Your task to perform on an android device: turn on location history Image 0: 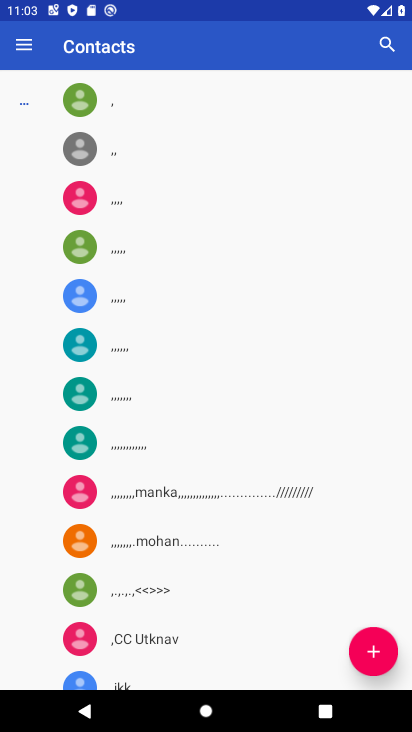
Step 0: press back button
Your task to perform on an android device: turn on location history Image 1: 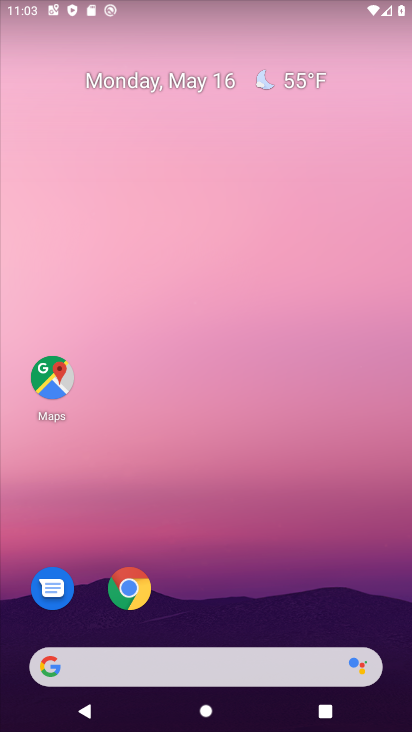
Step 1: drag from (352, 602) to (339, 121)
Your task to perform on an android device: turn on location history Image 2: 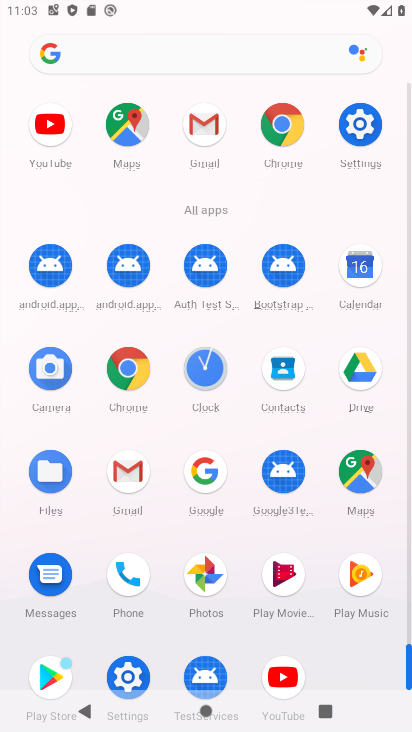
Step 2: click (364, 137)
Your task to perform on an android device: turn on location history Image 3: 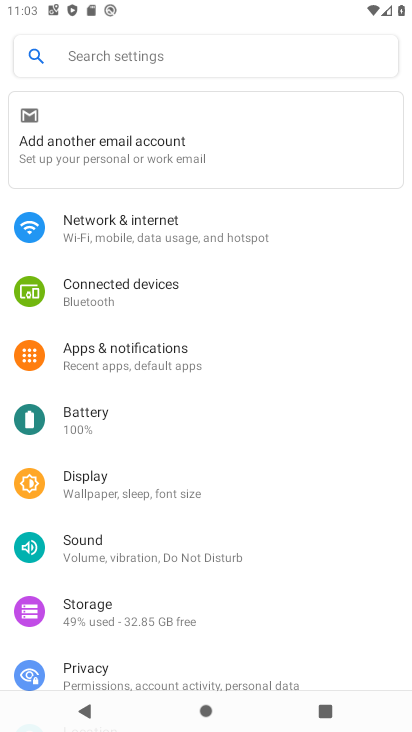
Step 3: drag from (291, 624) to (299, 408)
Your task to perform on an android device: turn on location history Image 4: 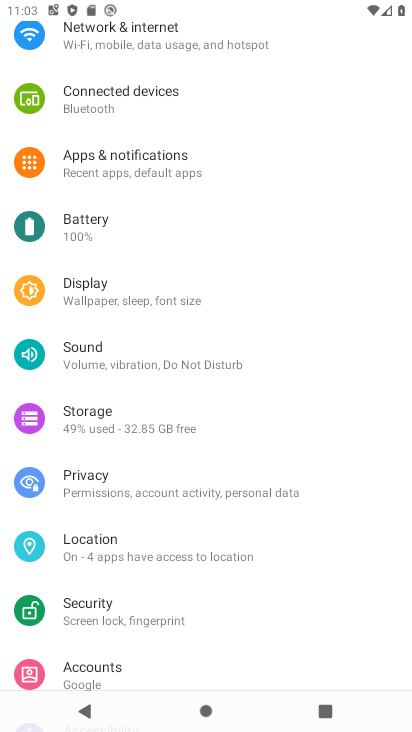
Step 4: drag from (291, 634) to (317, 415)
Your task to perform on an android device: turn on location history Image 5: 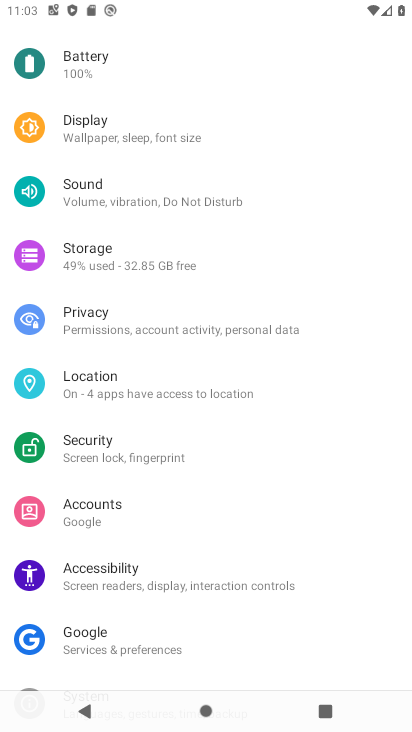
Step 5: drag from (272, 629) to (274, 426)
Your task to perform on an android device: turn on location history Image 6: 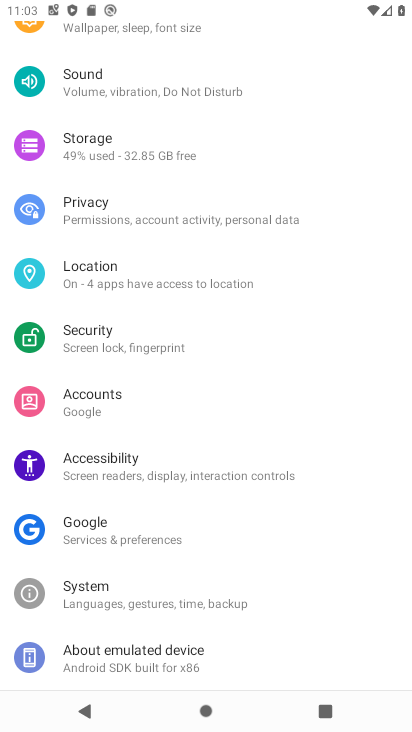
Step 6: drag from (313, 304) to (285, 489)
Your task to perform on an android device: turn on location history Image 7: 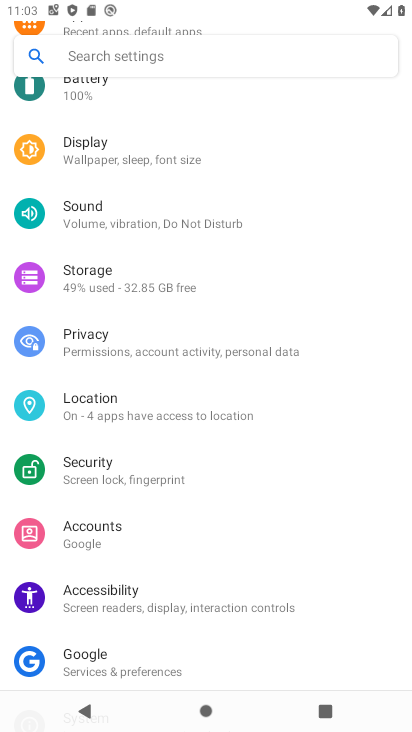
Step 7: drag from (313, 252) to (315, 439)
Your task to perform on an android device: turn on location history Image 8: 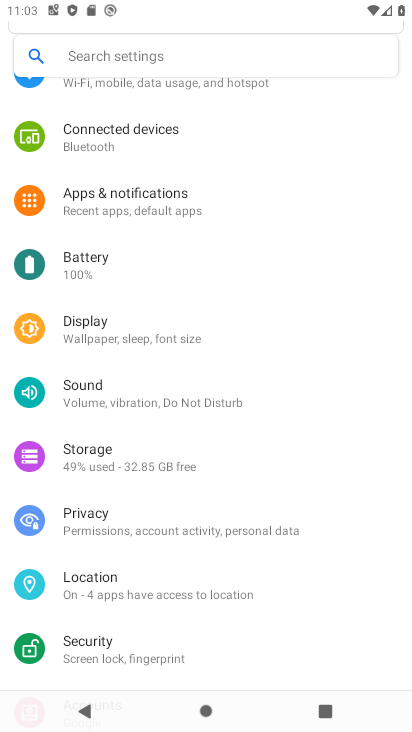
Step 8: drag from (325, 239) to (312, 378)
Your task to perform on an android device: turn on location history Image 9: 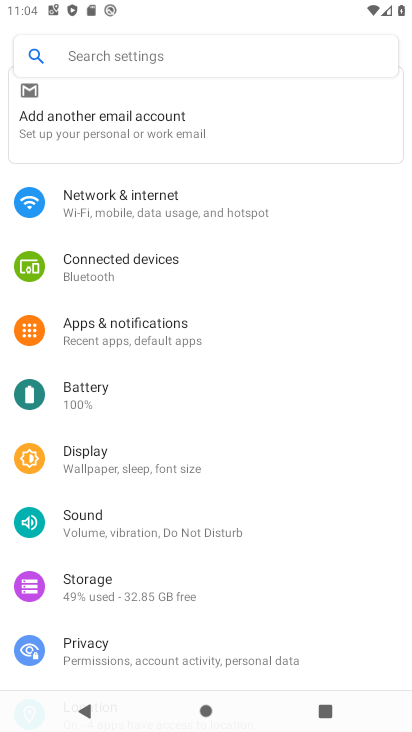
Step 9: drag from (321, 568) to (311, 391)
Your task to perform on an android device: turn on location history Image 10: 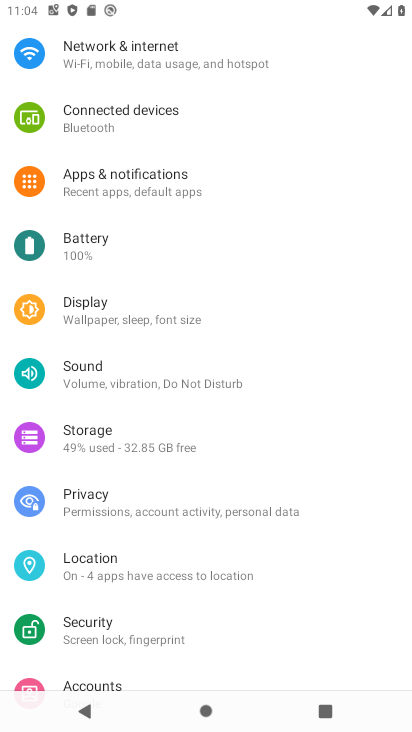
Step 10: drag from (295, 615) to (311, 381)
Your task to perform on an android device: turn on location history Image 11: 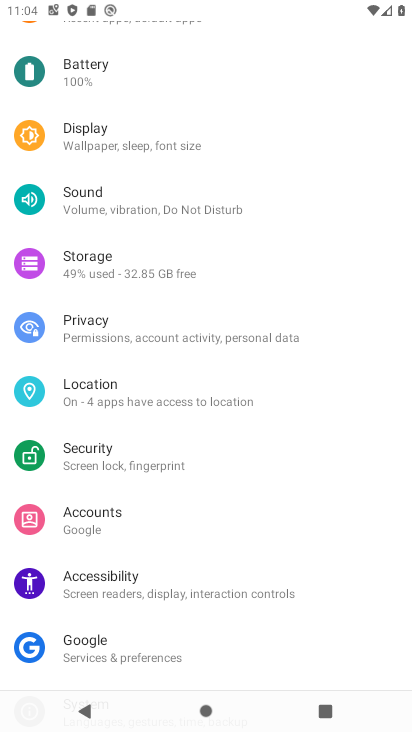
Step 11: click (190, 390)
Your task to perform on an android device: turn on location history Image 12: 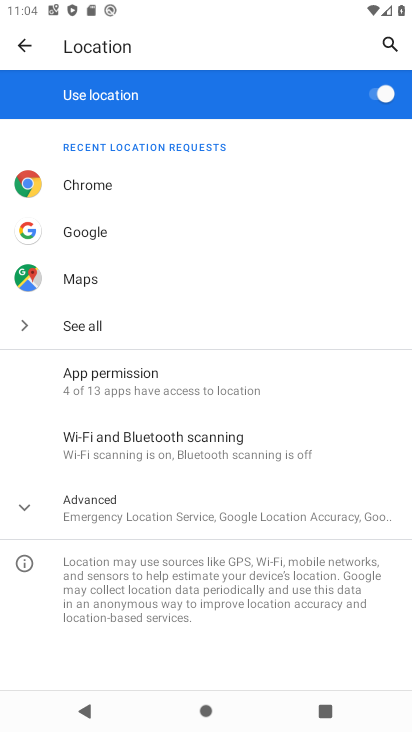
Step 12: click (222, 519)
Your task to perform on an android device: turn on location history Image 13: 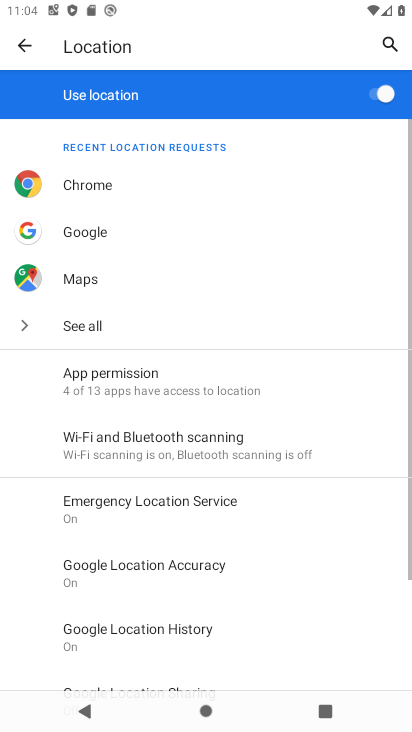
Step 13: drag from (237, 576) to (265, 387)
Your task to perform on an android device: turn on location history Image 14: 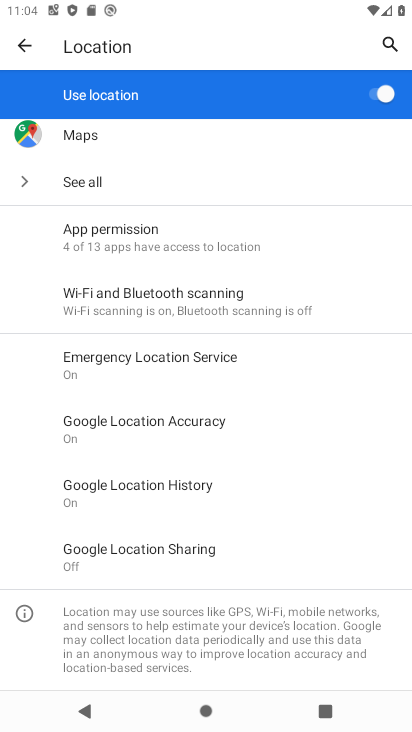
Step 14: drag from (255, 579) to (277, 417)
Your task to perform on an android device: turn on location history Image 15: 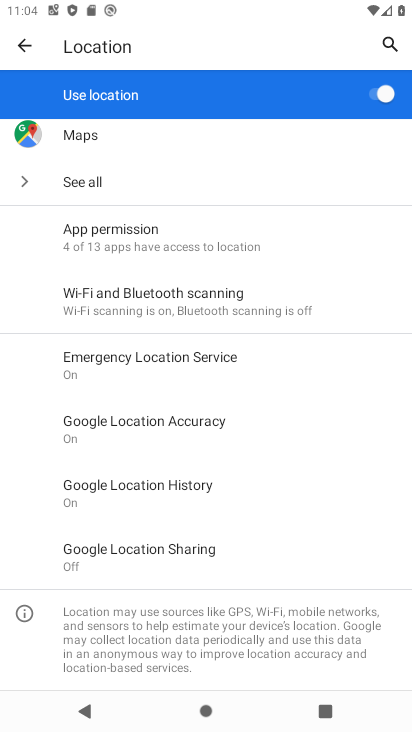
Step 15: click (158, 480)
Your task to perform on an android device: turn on location history Image 16: 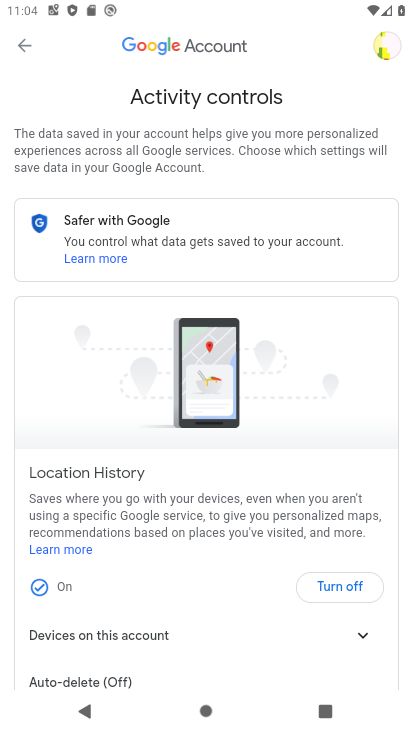
Step 16: task complete